Your task to perform on an android device: move a message to another label in the gmail app Image 0: 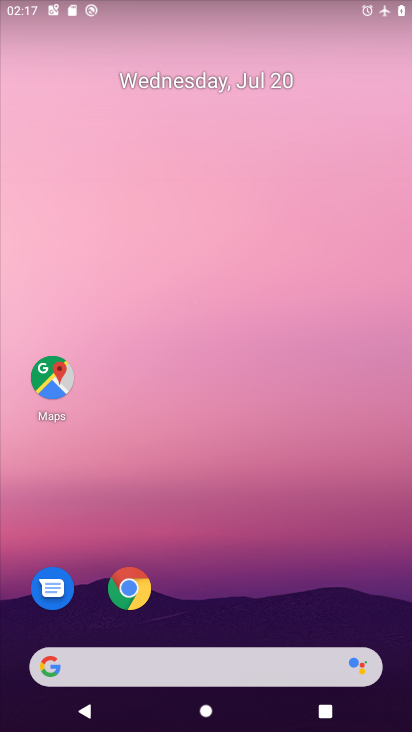
Step 0: drag from (257, 616) to (258, 83)
Your task to perform on an android device: move a message to another label in the gmail app Image 1: 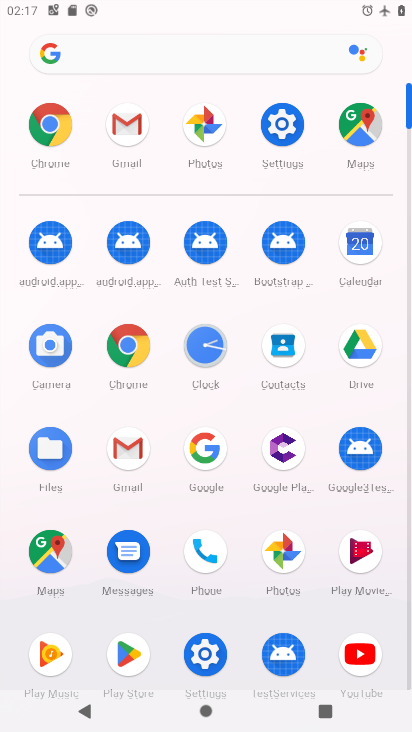
Step 1: click (134, 126)
Your task to perform on an android device: move a message to another label in the gmail app Image 2: 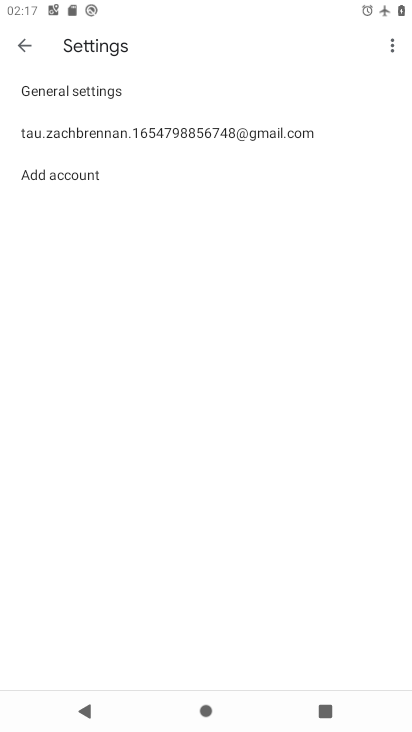
Step 2: click (19, 48)
Your task to perform on an android device: move a message to another label in the gmail app Image 3: 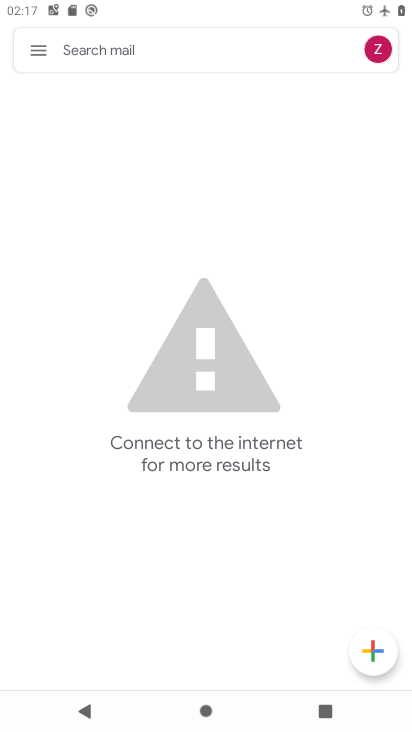
Step 3: click (37, 43)
Your task to perform on an android device: move a message to another label in the gmail app Image 4: 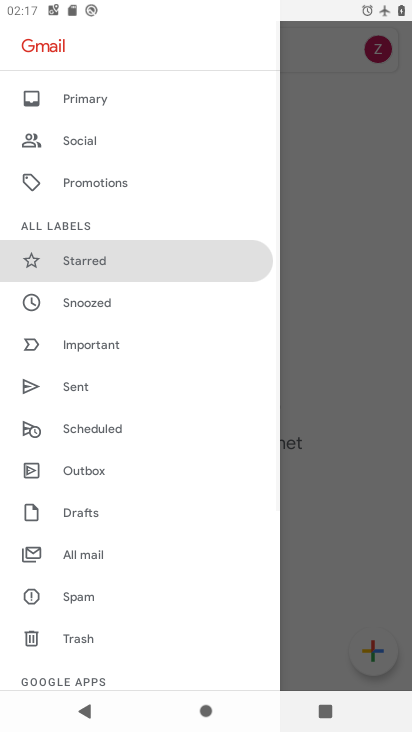
Step 4: click (115, 555)
Your task to perform on an android device: move a message to another label in the gmail app Image 5: 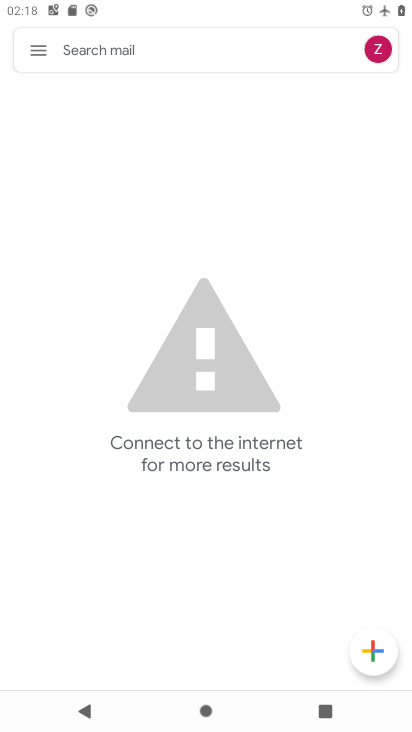
Step 5: task complete